Your task to perform on an android device: Check the weather Image 0: 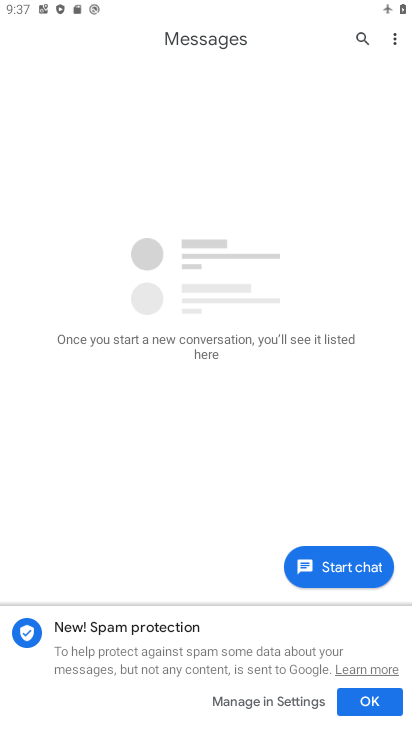
Step 0: press home button
Your task to perform on an android device: Check the weather Image 1: 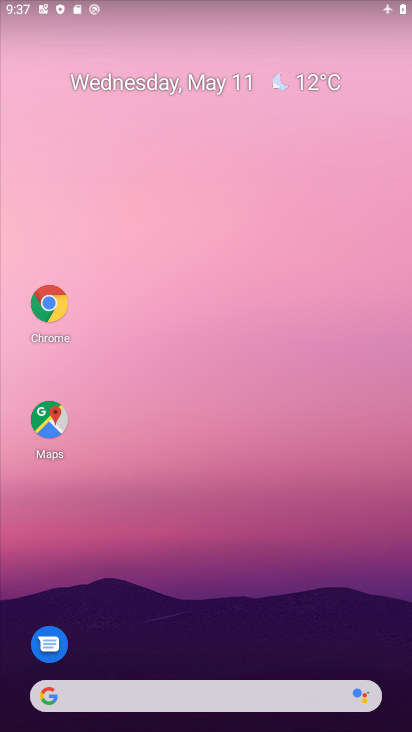
Step 1: click (60, 303)
Your task to perform on an android device: Check the weather Image 2: 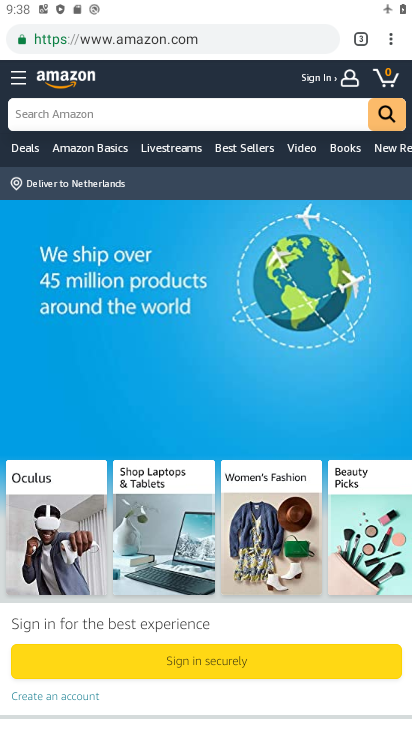
Step 2: click (361, 44)
Your task to perform on an android device: Check the weather Image 3: 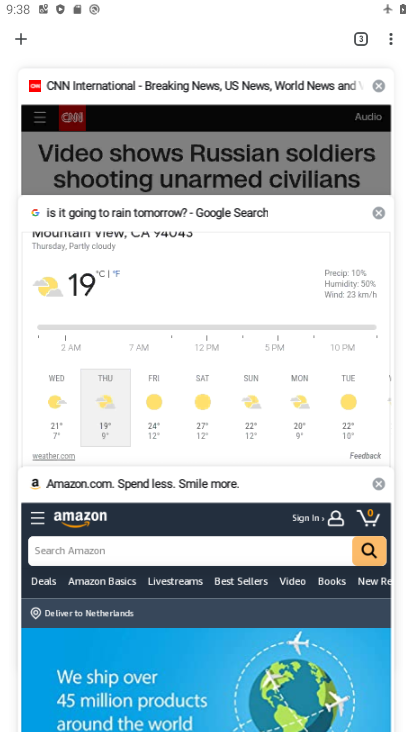
Step 3: click (22, 34)
Your task to perform on an android device: Check the weather Image 4: 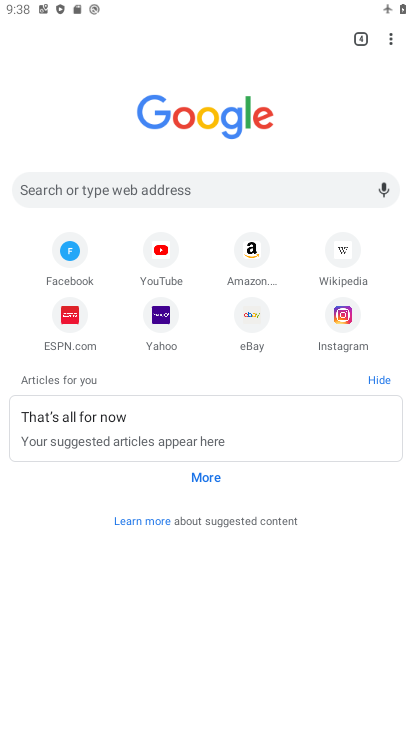
Step 4: click (140, 190)
Your task to perform on an android device: Check the weather Image 5: 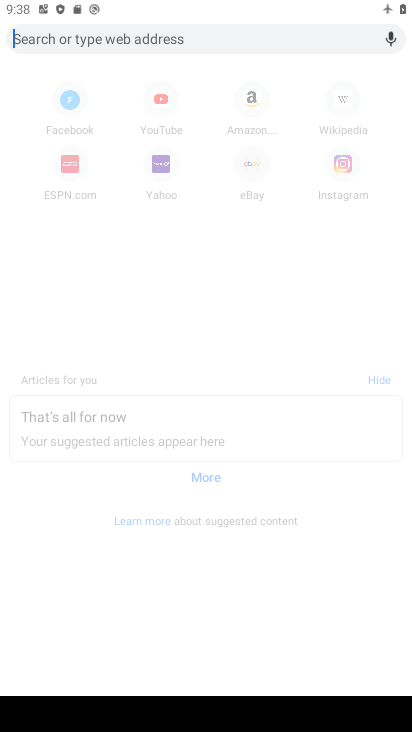
Step 5: type "check the weather"
Your task to perform on an android device: Check the weather Image 6: 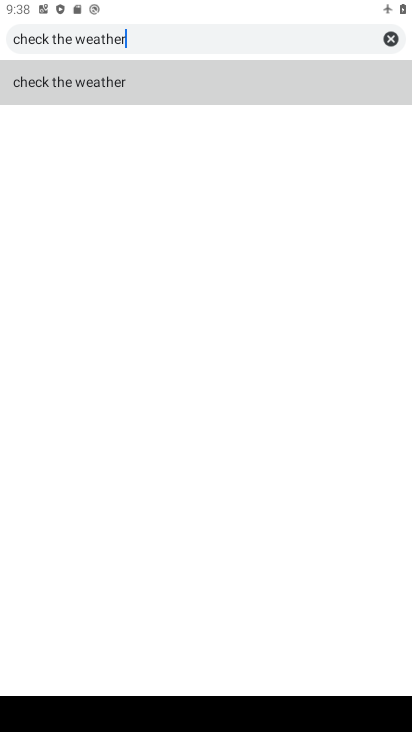
Step 6: click (166, 90)
Your task to perform on an android device: Check the weather Image 7: 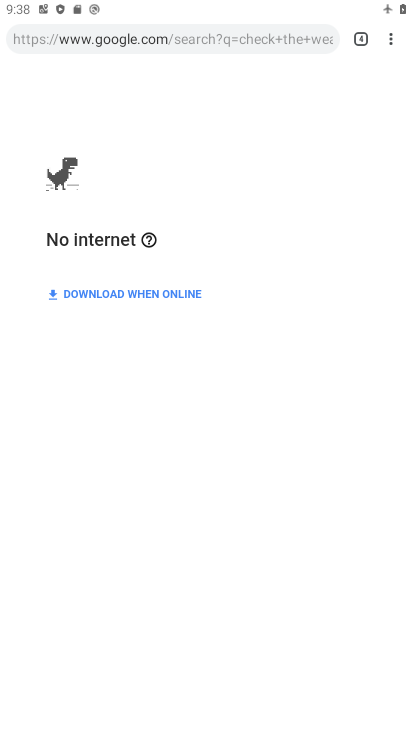
Step 7: task complete